Your task to perform on an android device: toggle javascript in the chrome app Image 0: 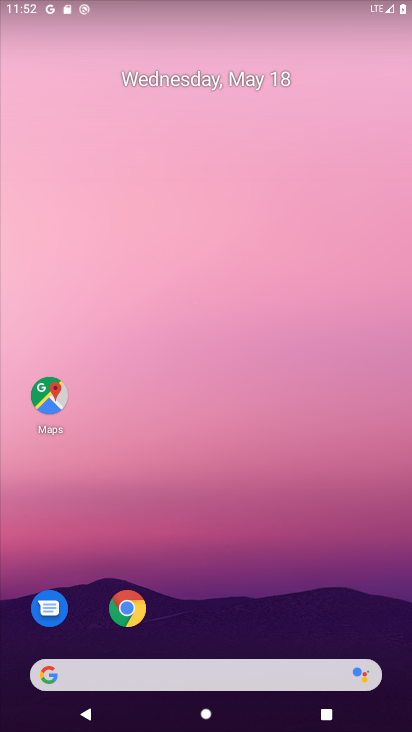
Step 0: click (136, 610)
Your task to perform on an android device: toggle javascript in the chrome app Image 1: 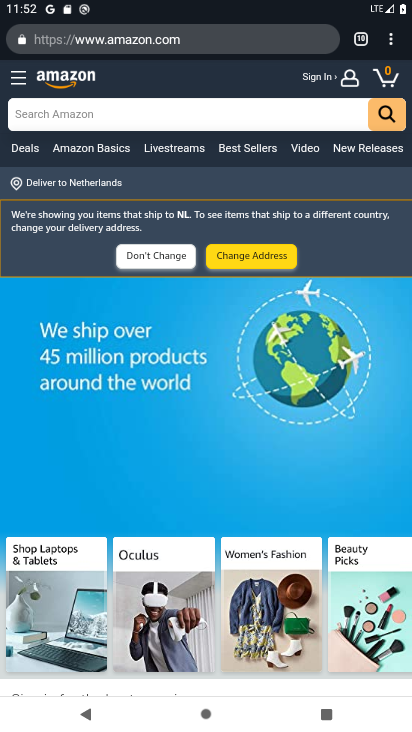
Step 1: click (393, 45)
Your task to perform on an android device: toggle javascript in the chrome app Image 2: 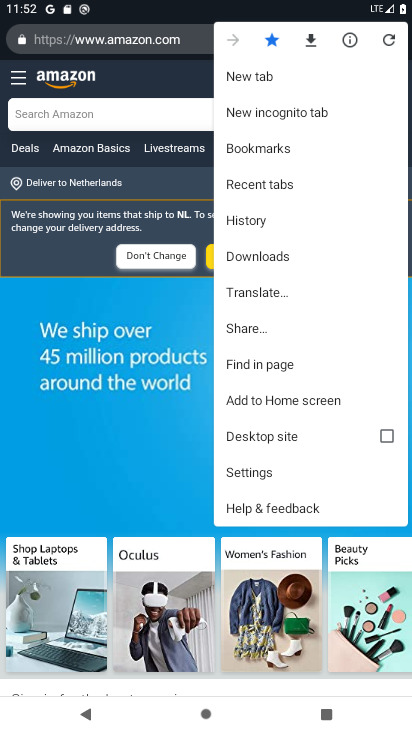
Step 2: click (257, 474)
Your task to perform on an android device: toggle javascript in the chrome app Image 3: 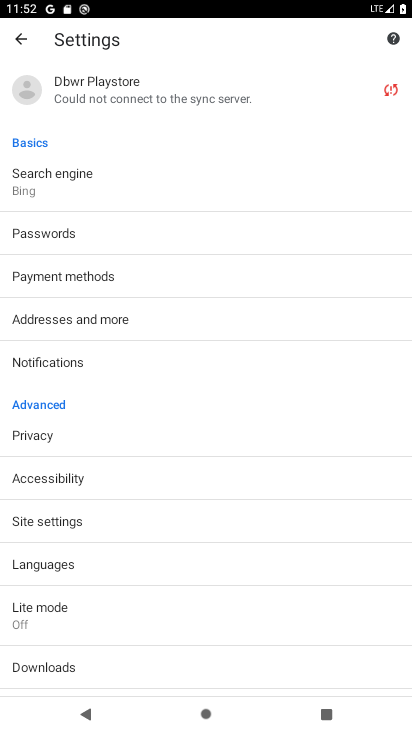
Step 3: click (44, 520)
Your task to perform on an android device: toggle javascript in the chrome app Image 4: 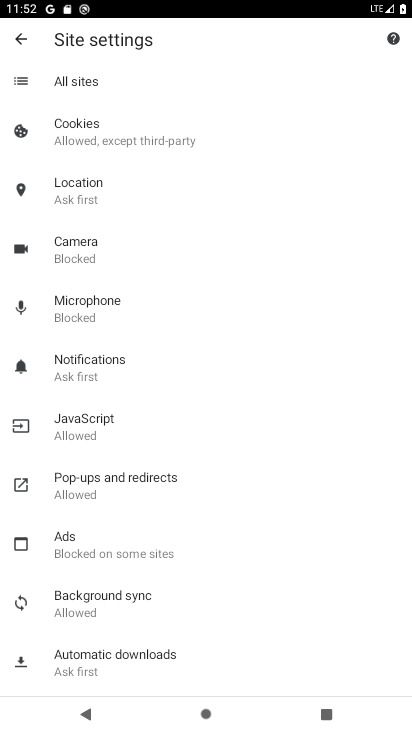
Step 4: click (99, 426)
Your task to perform on an android device: toggle javascript in the chrome app Image 5: 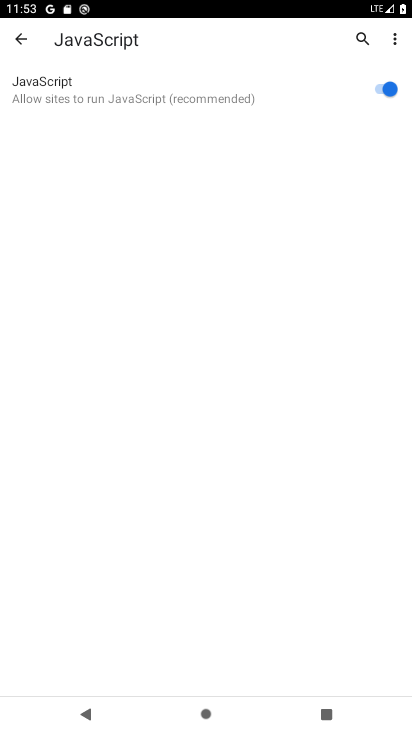
Step 5: click (389, 86)
Your task to perform on an android device: toggle javascript in the chrome app Image 6: 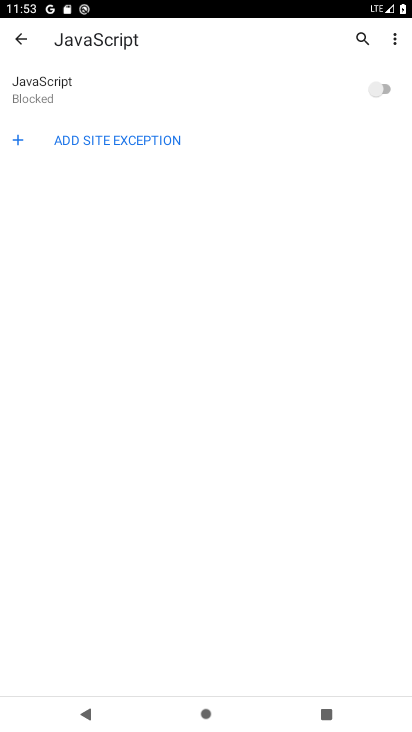
Step 6: task complete